Your task to perform on an android device: toggle notification dots Image 0: 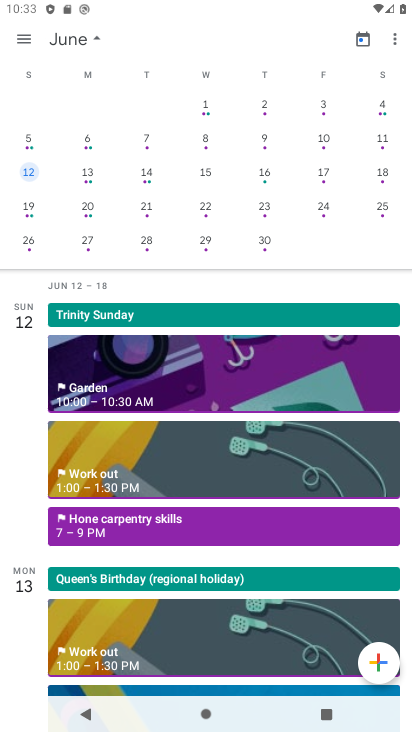
Step 0: press home button
Your task to perform on an android device: toggle notification dots Image 1: 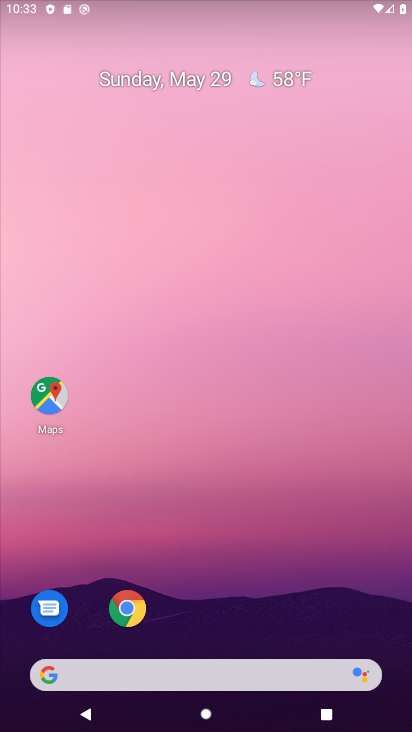
Step 1: drag from (167, 663) to (235, 59)
Your task to perform on an android device: toggle notification dots Image 2: 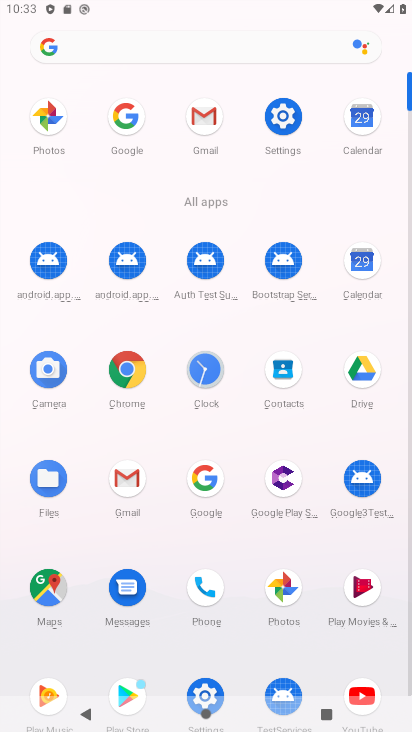
Step 2: click (292, 122)
Your task to perform on an android device: toggle notification dots Image 3: 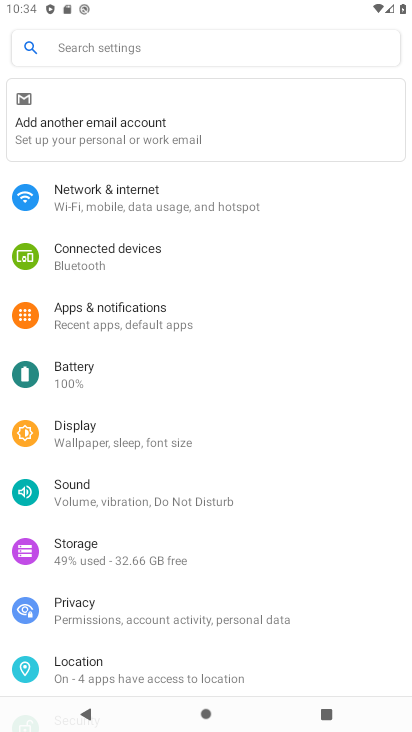
Step 3: click (143, 319)
Your task to perform on an android device: toggle notification dots Image 4: 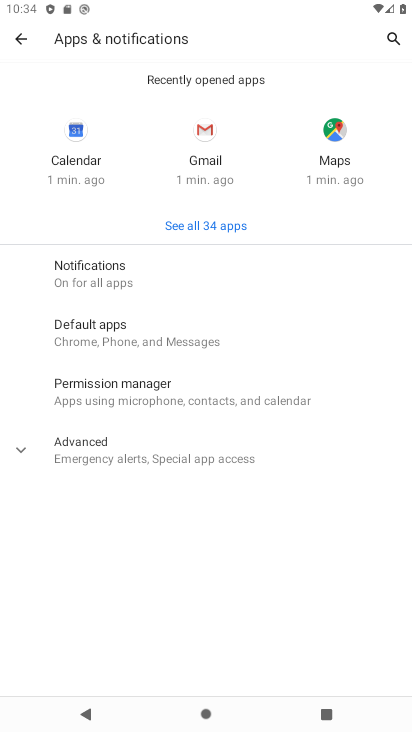
Step 4: click (100, 462)
Your task to perform on an android device: toggle notification dots Image 5: 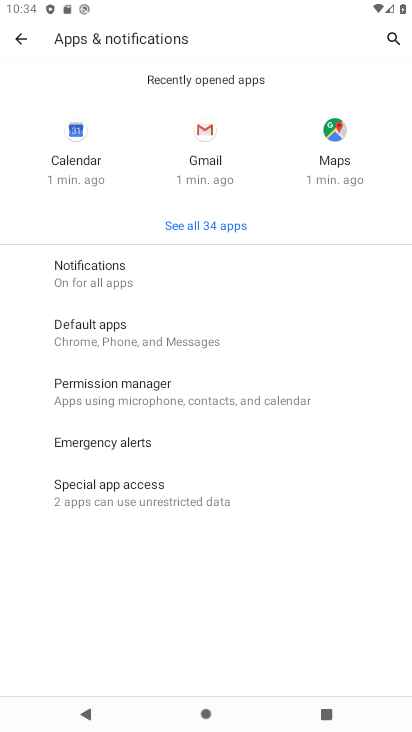
Step 5: click (110, 270)
Your task to perform on an android device: toggle notification dots Image 6: 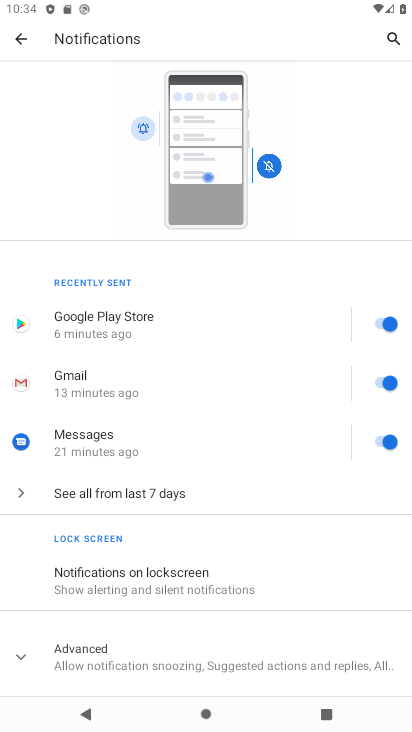
Step 6: click (122, 665)
Your task to perform on an android device: toggle notification dots Image 7: 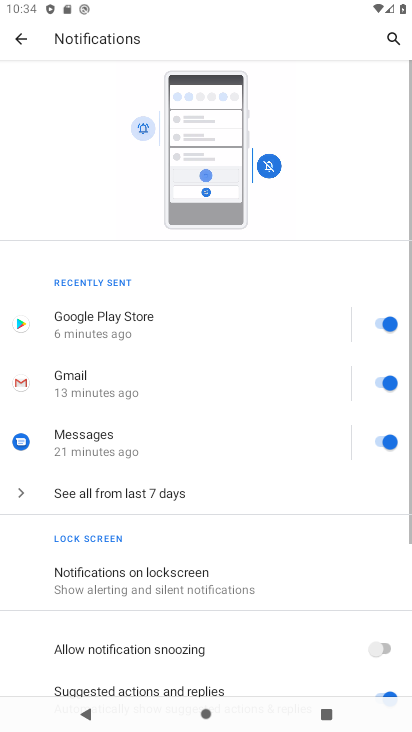
Step 7: drag from (136, 693) to (152, 268)
Your task to perform on an android device: toggle notification dots Image 8: 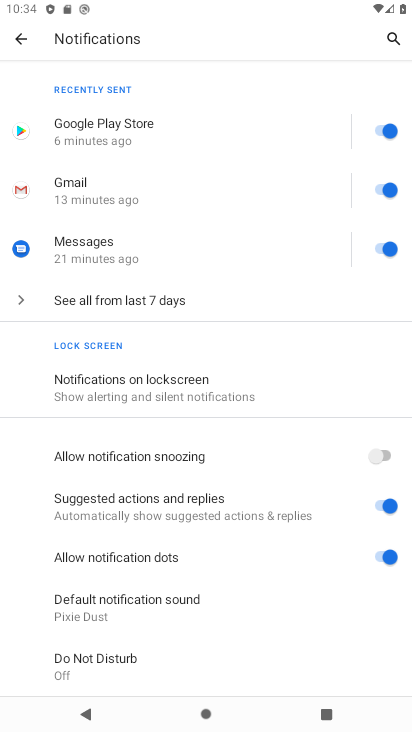
Step 8: click (382, 559)
Your task to perform on an android device: toggle notification dots Image 9: 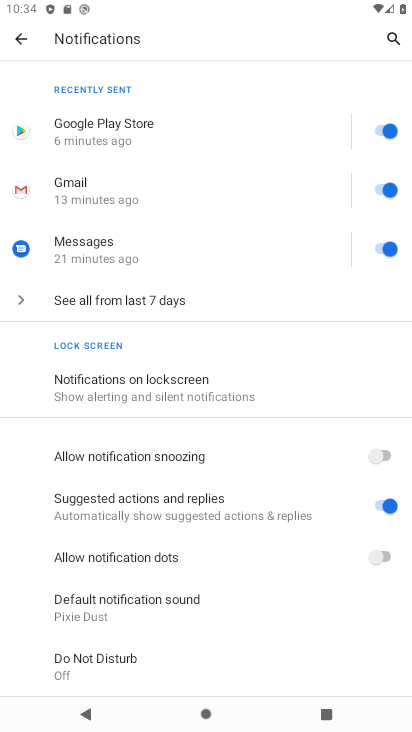
Step 9: task complete